Your task to perform on an android device: Go to privacy settings Image 0: 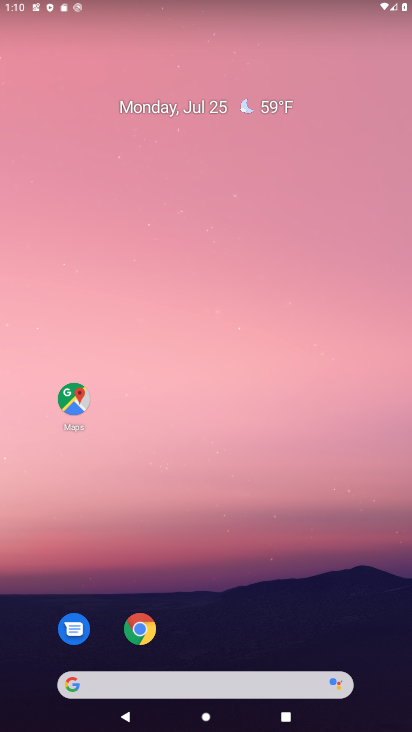
Step 0: drag from (238, 662) to (238, 212)
Your task to perform on an android device: Go to privacy settings Image 1: 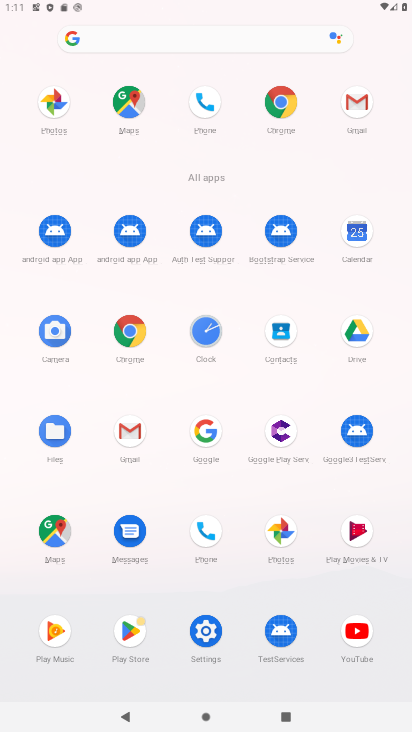
Step 1: click (210, 622)
Your task to perform on an android device: Go to privacy settings Image 2: 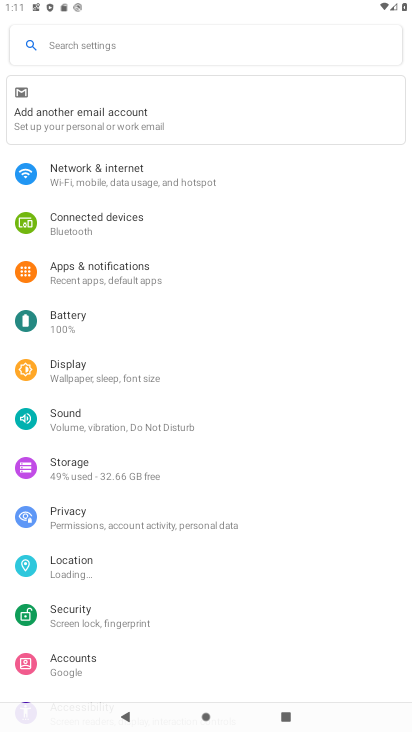
Step 2: click (109, 513)
Your task to perform on an android device: Go to privacy settings Image 3: 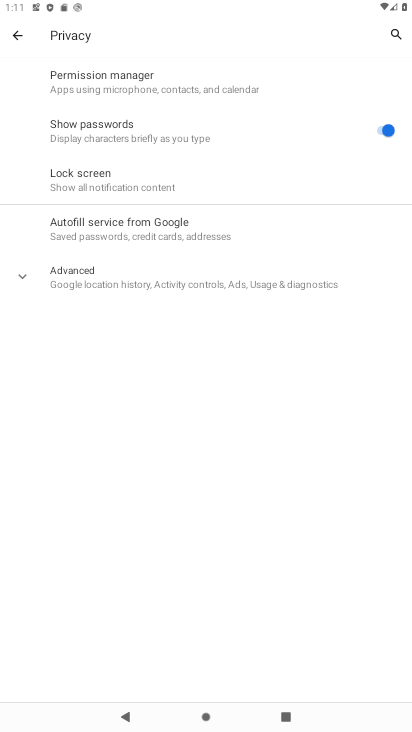
Step 3: task complete